Your task to perform on an android device: Search for the new nintendo switch on Walmart. Image 0: 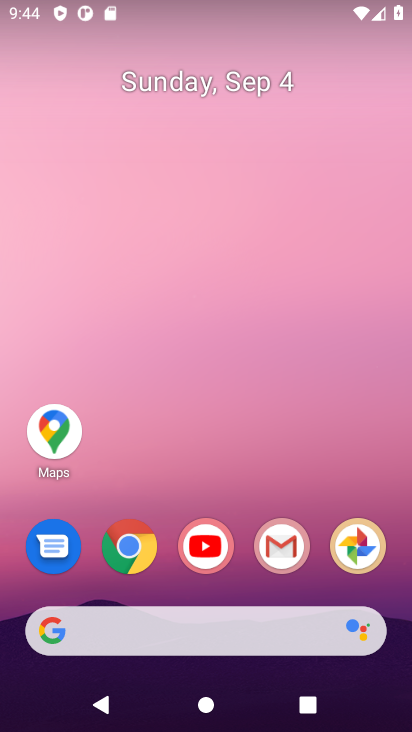
Step 0: click (127, 551)
Your task to perform on an android device: Search for the new nintendo switch on Walmart. Image 1: 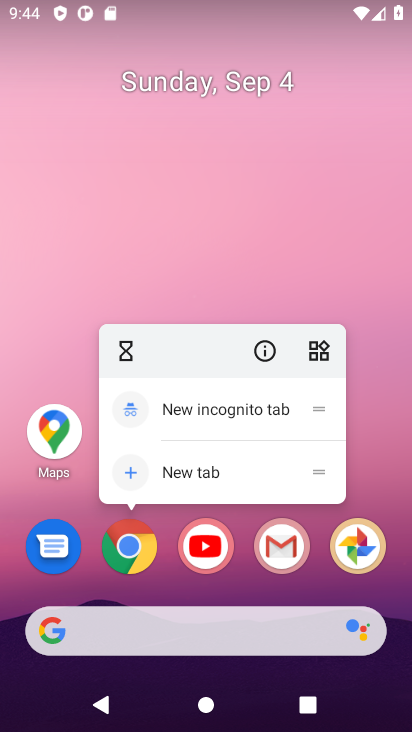
Step 1: click (127, 551)
Your task to perform on an android device: Search for the new nintendo switch on Walmart. Image 2: 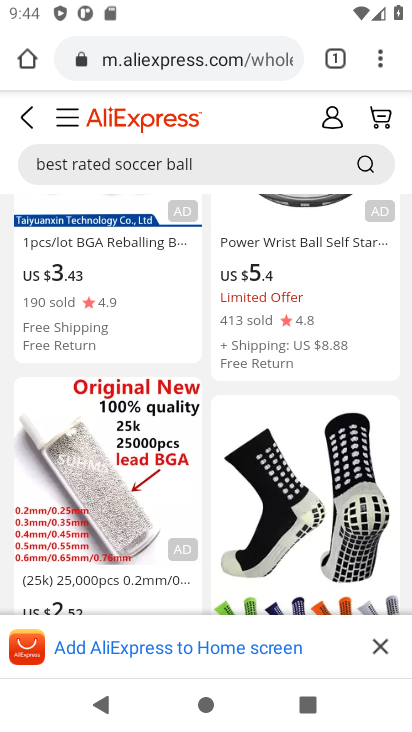
Step 2: click (185, 62)
Your task to perform on an android device: Search for the new nintendo switch on Walmart. Image 3: 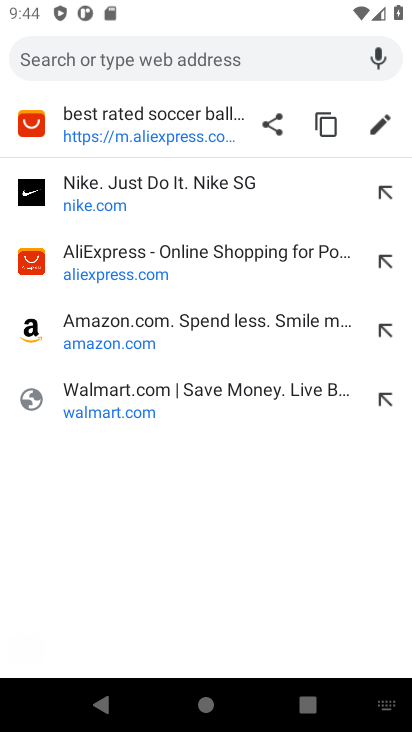
Step 3: type " Walmart."
Your task to perform on an android device: Search for the new nintendo switch on Walmart. Image 4: 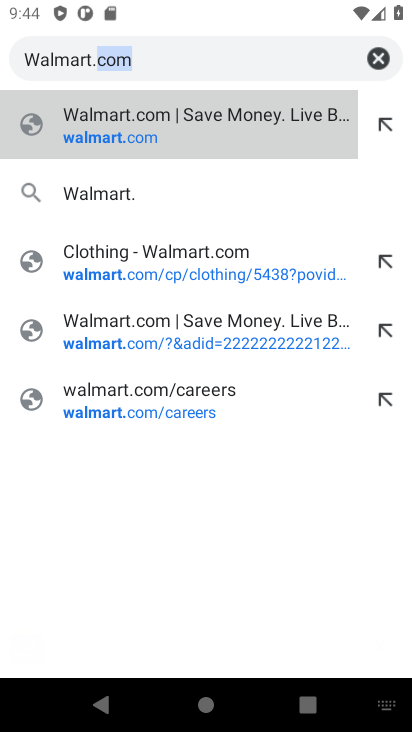
Step 4: click (96, 189)
Your task to perform on an android device: Search for the new nintendo switch on Walmart. Image 5: 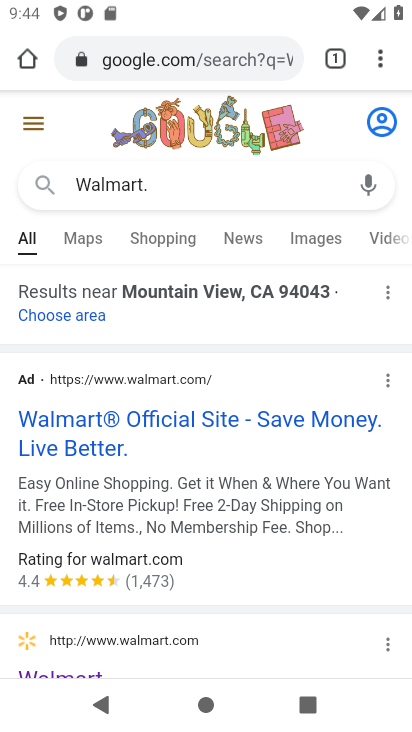
Step 5: drag from (267, 556) to (260, 89)
Your task to perform on an android device: Search for the new nintendo switch on Walmart. Image 6: 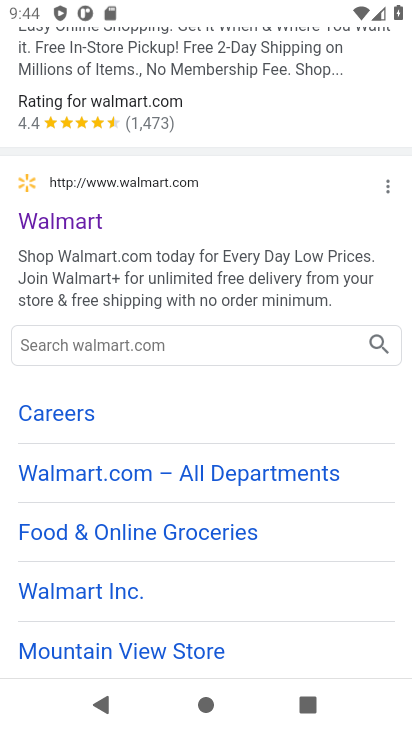
Step 6: drag from (280, 512) to (270, 89)
Your task to perform on an android device: Search for the new nintendo switch on Walmart. Image 7: 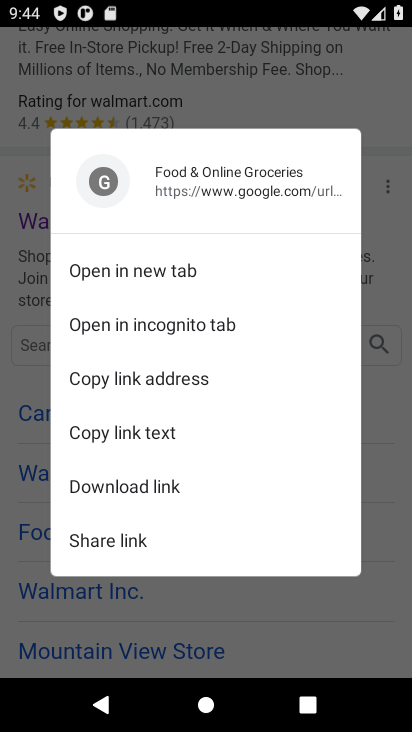
Step 7: click (390, 265)
Your task to perform on an android device: Search for the new nintendo switch on Walmart. Image 8: 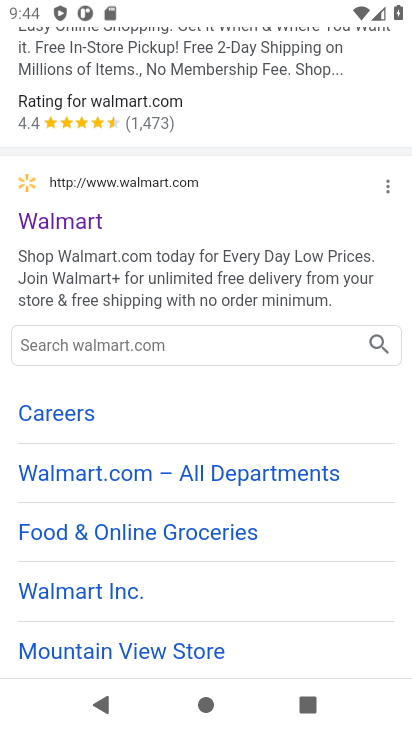
Step 8: click (51, 224)
Your task to perform on an android device: Search for the new nintendo switch on Walmart. Image 9: 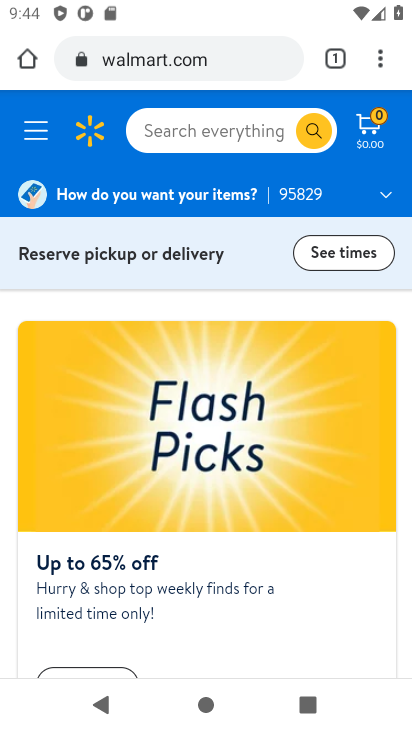
Step 9: click (242, 125)
Your task to perform on an android device: Search for the new nintendo switch on Walmart. Image 10: 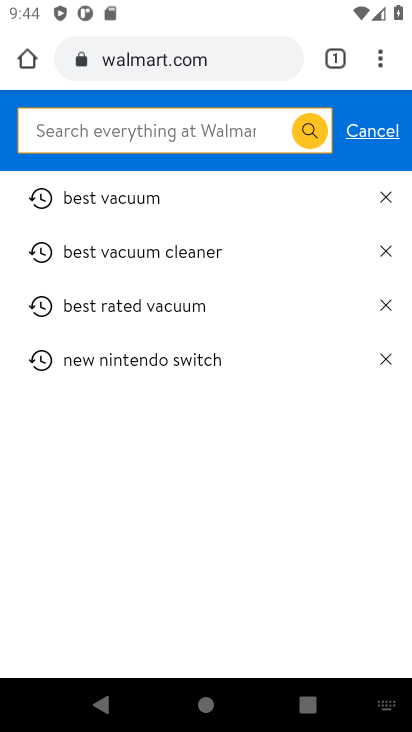
Step 10: type "new nintendo switch"
Your task to perform on an android device: Search for the new nintendo switch on Walmart. Image 11: 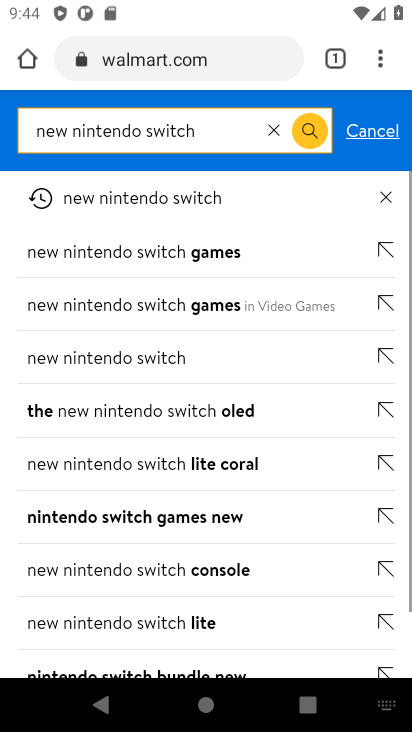
Step 11: click (119, 363)
Your task to perform on an android device: Search for the new nintendo switch on Walmart. Image 12: 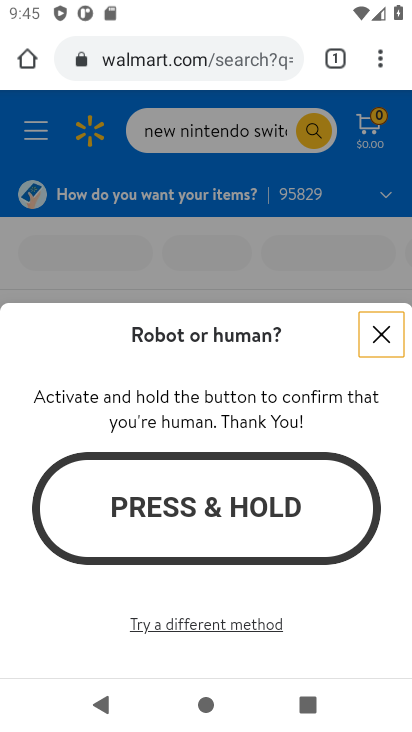
Step 12: click (204, 624)
Your task to perform on an android device: Search for the new nintendo switch on Walmart. Image 13: 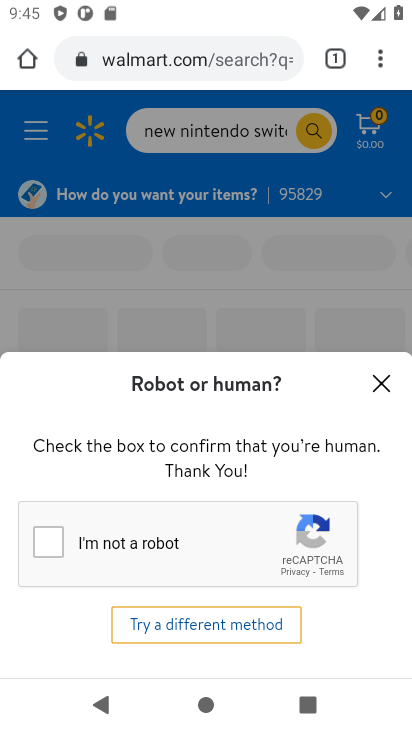
Step 13: click (48, 537)
Your task to perform on an android device: Search for the new nintendo switch on Walmart. Image 14: 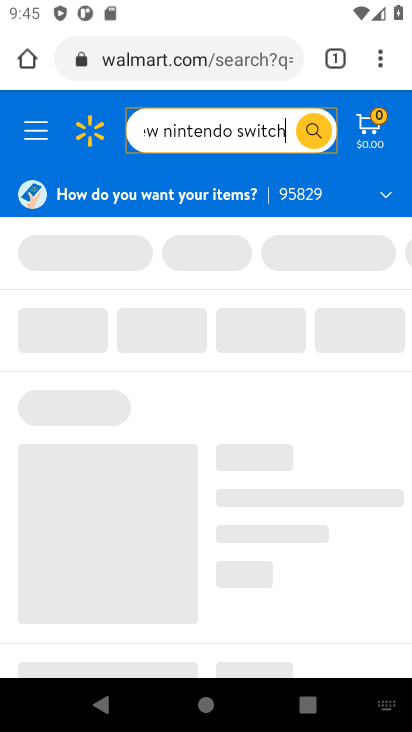
Step 14: task complete